Your task to perform on an android device: Open the Play Movies app and select the watchlist tab. Image 0: 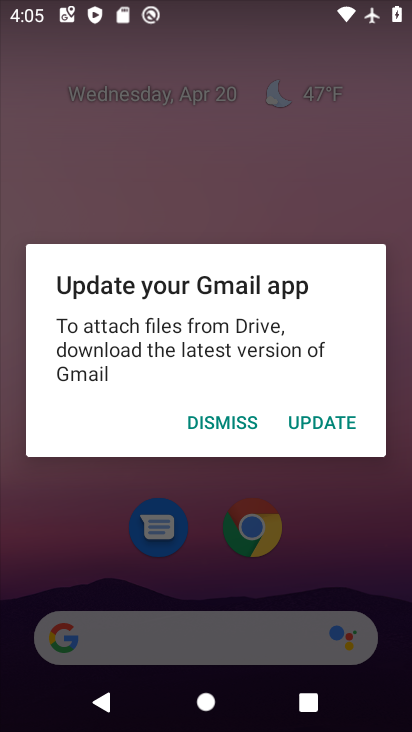
Step 0: press home button
Your task to perform on an android device: Open the Play Movies app and select the watchlist tab. Image 1: 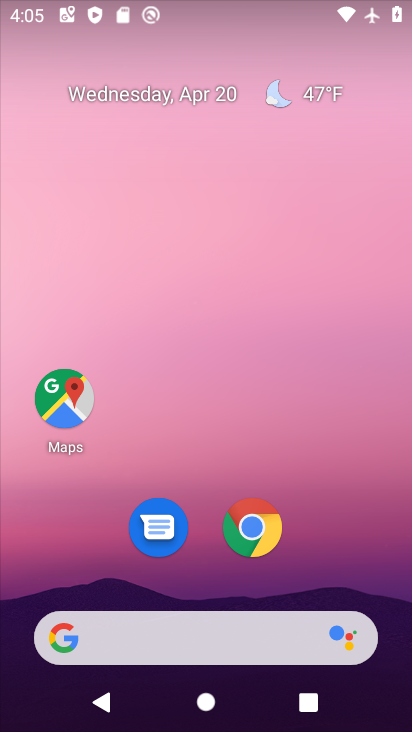
Step 1: drag from (346, 561) to (395, 15)
Your task to perform on an android device: Open the Play Movies app and select the watchlist tab. Image 2: 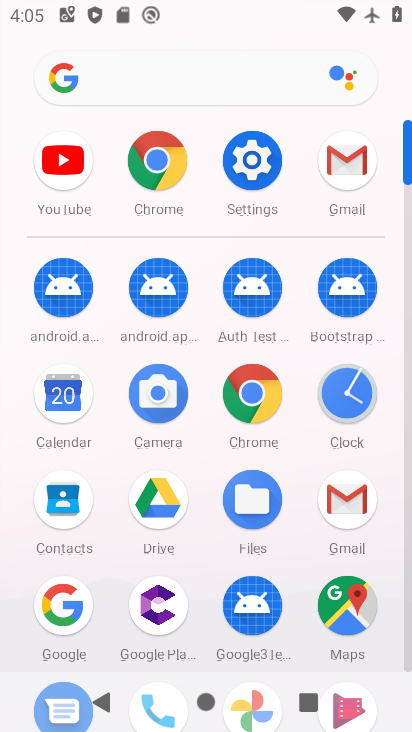
Step 2: drag from (374, 603) to (385, 249)
Your task to perform on an android device: Open the Play Movies app and select the watchlist tab. Image 3: 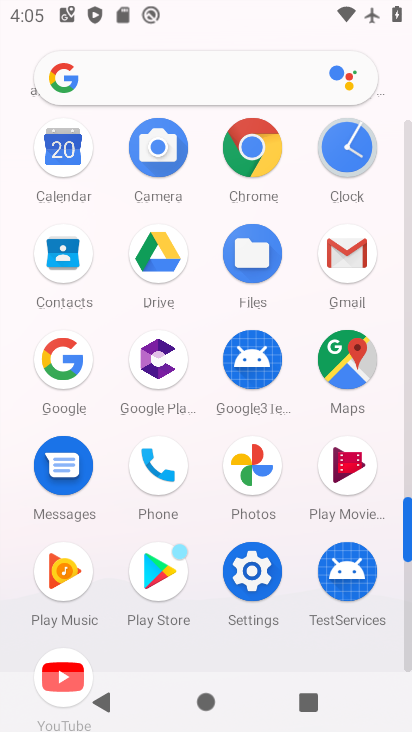
Step 3: click (342, 462)
Your task to perform on an android device: Open the Play Movies app and select the watchlist tab. Image 4: 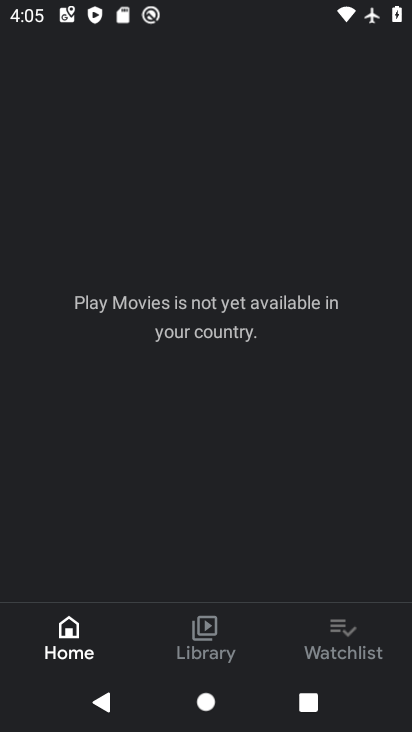
Step 4: task complete